Your task to perform on an android device: Open Google Maps Image 0: 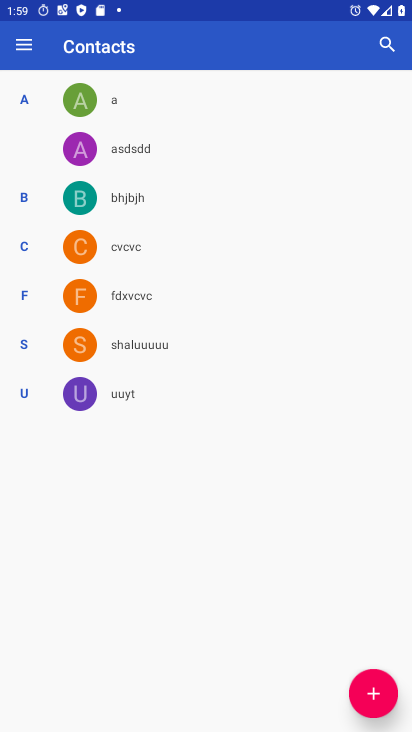
Step 0: press home button
Your task to perform on an android device: Open Google Maps Image 1: 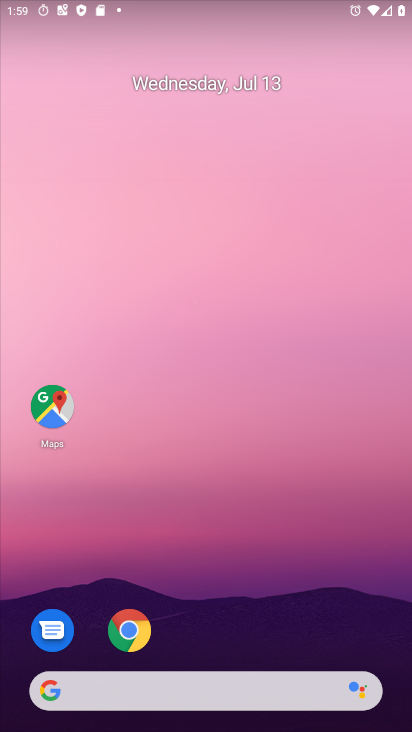
Step 1: drag from (351, 599) to (327, 58)
Your task to perform on an android device: Open Google Maps Image 2: 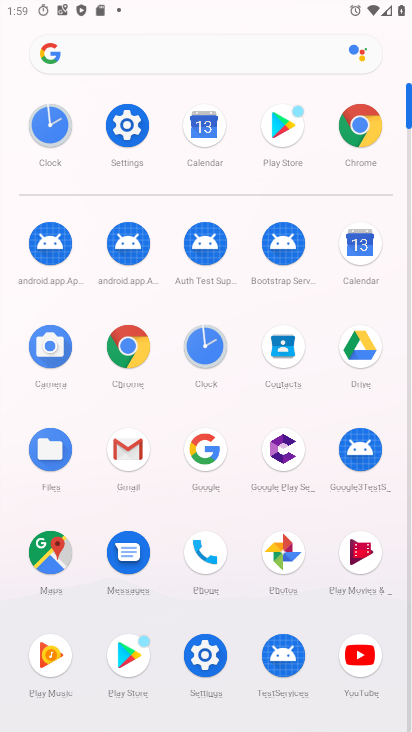
Step 2: click (46, 554)
Your task to perform on an android device: Open Google Maps Image 3: 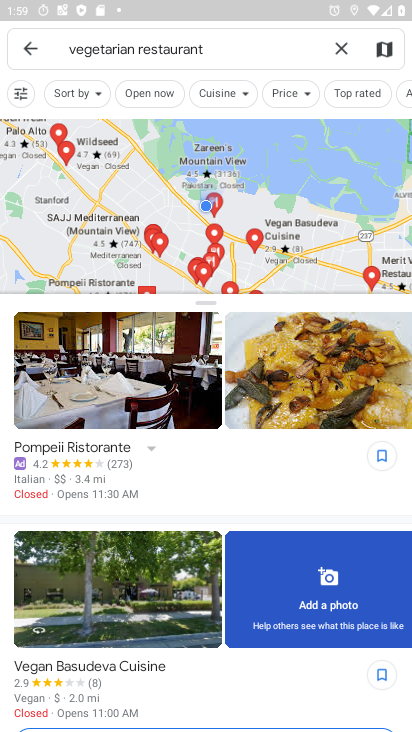
Step 3: task complete